Your task to perform on an android device: Find coffee shops on Maps Image 0: 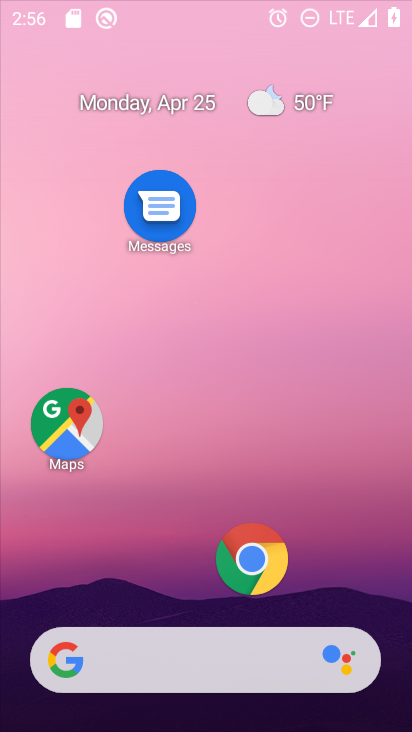
Step 0: click (210, 271)
Your task to perform on an android device: Find coffee shops on Maps Image 1: 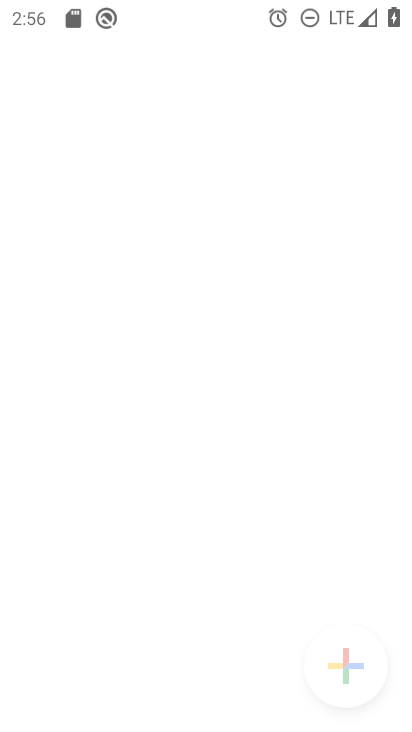
Step 1: click (253, 572)
Your task to perform on an android device: Find coffee shops on Maps Image 2: 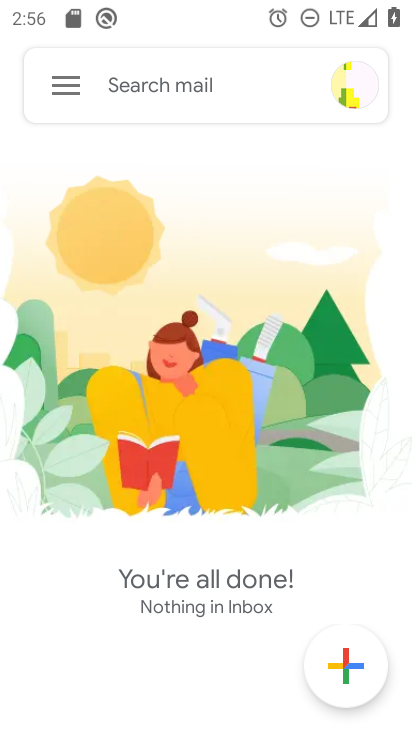
Step 2: press home button
Your task to perform on an android device: Find coffee shops on Maps Image 3: 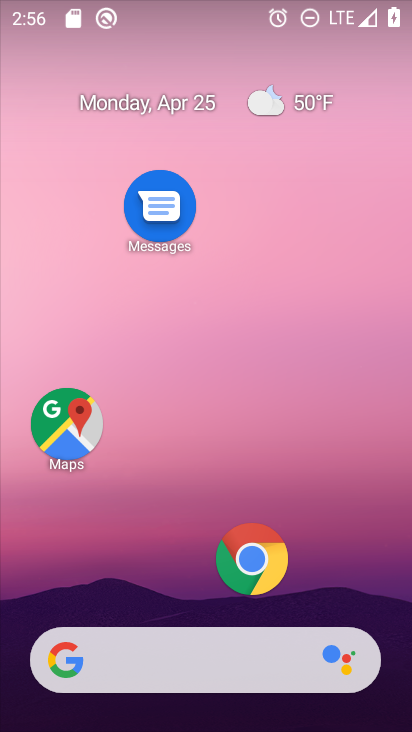
Step 3: click (75, 433)
Your task to perform on an android device: Find coffee shops on Maps Image 4: 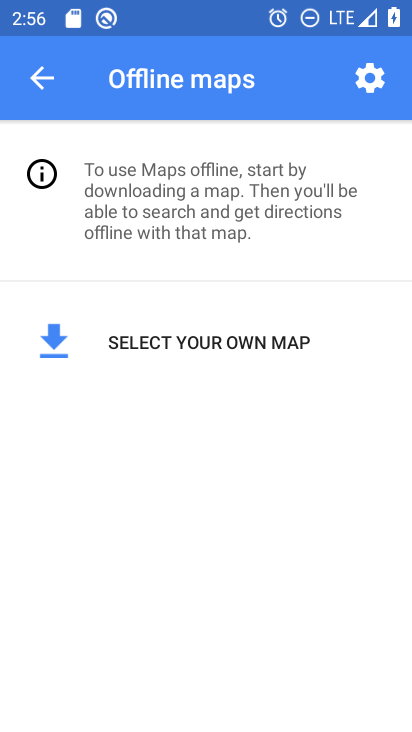
Step 4: click (38, 74)
Your task to perform on an android device: Find coffee shops on Maps Image 5: 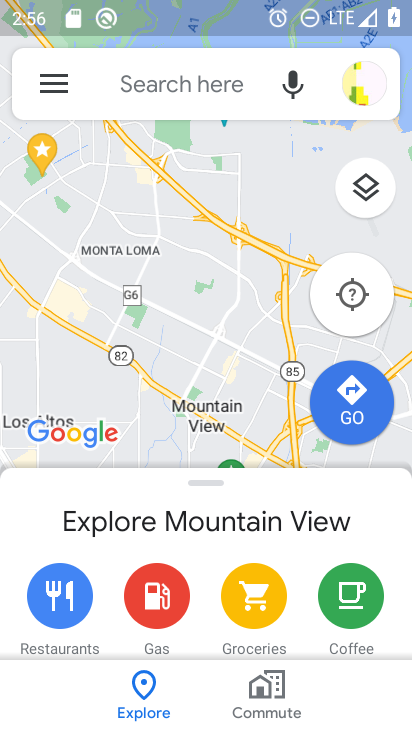
Step 5: click (211, 85)
Your task to perform on an android device: Find coffee shops on Maps Image 6: 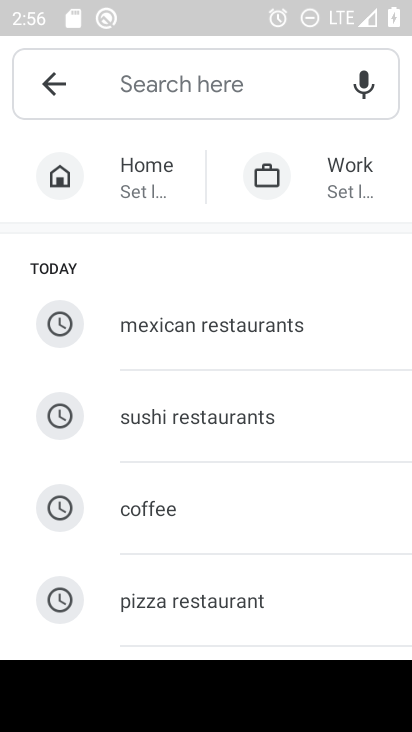
Step 6: type "coffee shops"
Your task to perform on an android device: Find coffee shops on Maps Image 7: 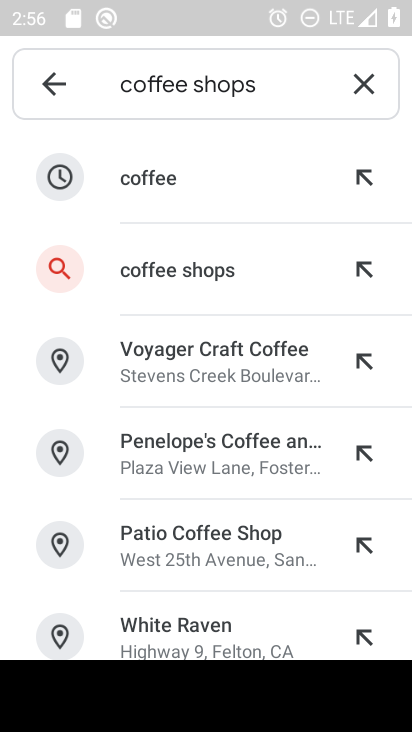
Step 7: click (209, 284)
Your task to perform on an android device: Find coffee shops on Maps Image 8: 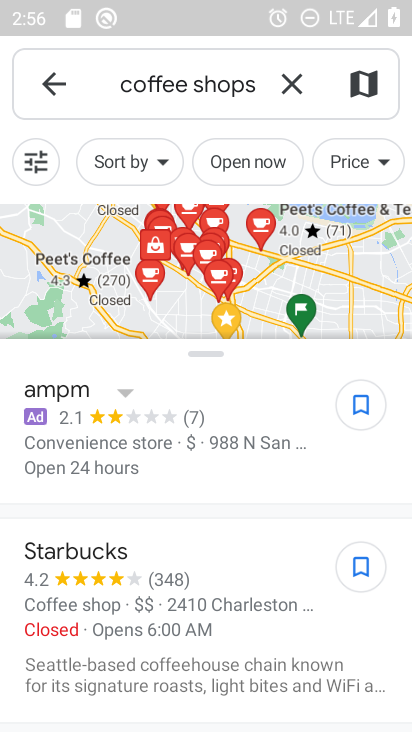
Step 8: task complete